Your task to perform on an android device: Is it going to rain tomorrow? Image 0: 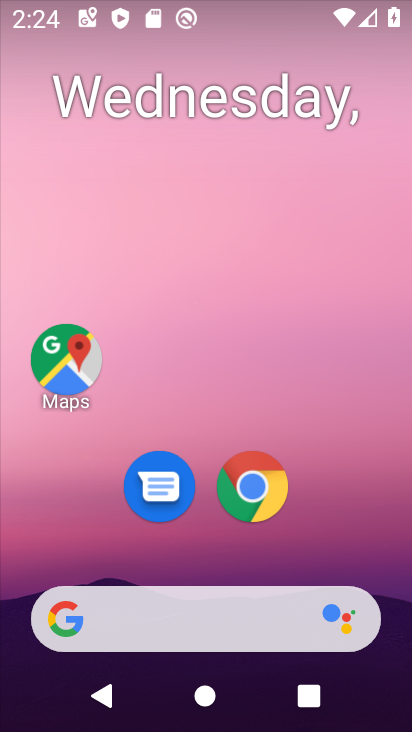
Step 0: click (250, 622)
Your task to perform on an android device: Is it going to rain tomorrow? Image 1: 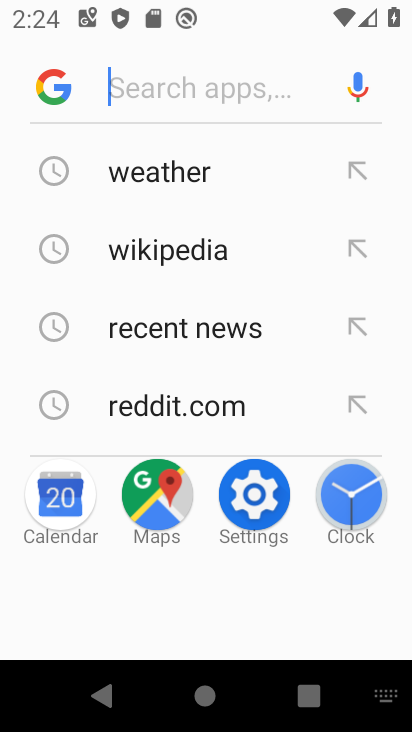
Step 1: type "is it going to rain tomorrow"
Your task to perform on an android device: Is it going to rain tomorrow? Image 2: 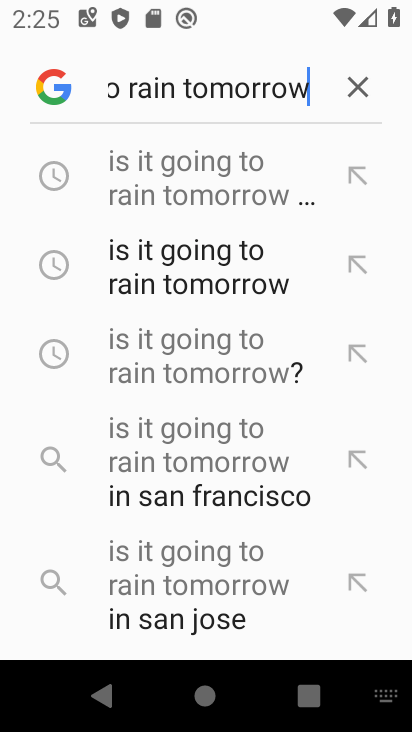
Step 2: click (227, 190)
Your task to perform on an android device: Is it going to rain tomorrow? Image 3: 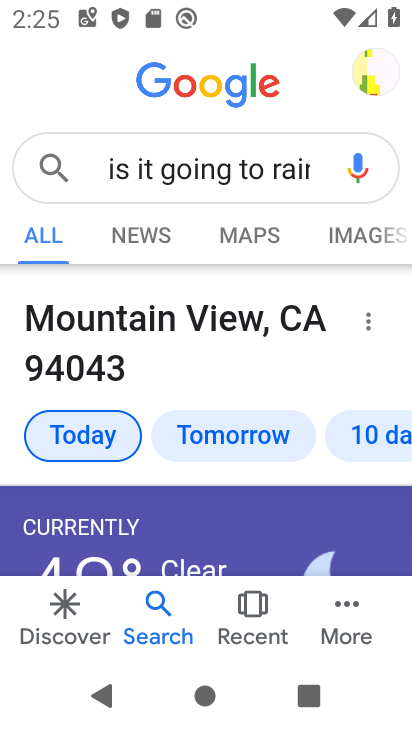
Step 3: task complete